Your task to perform on an android device: empty trash in the gmail app Image 0: 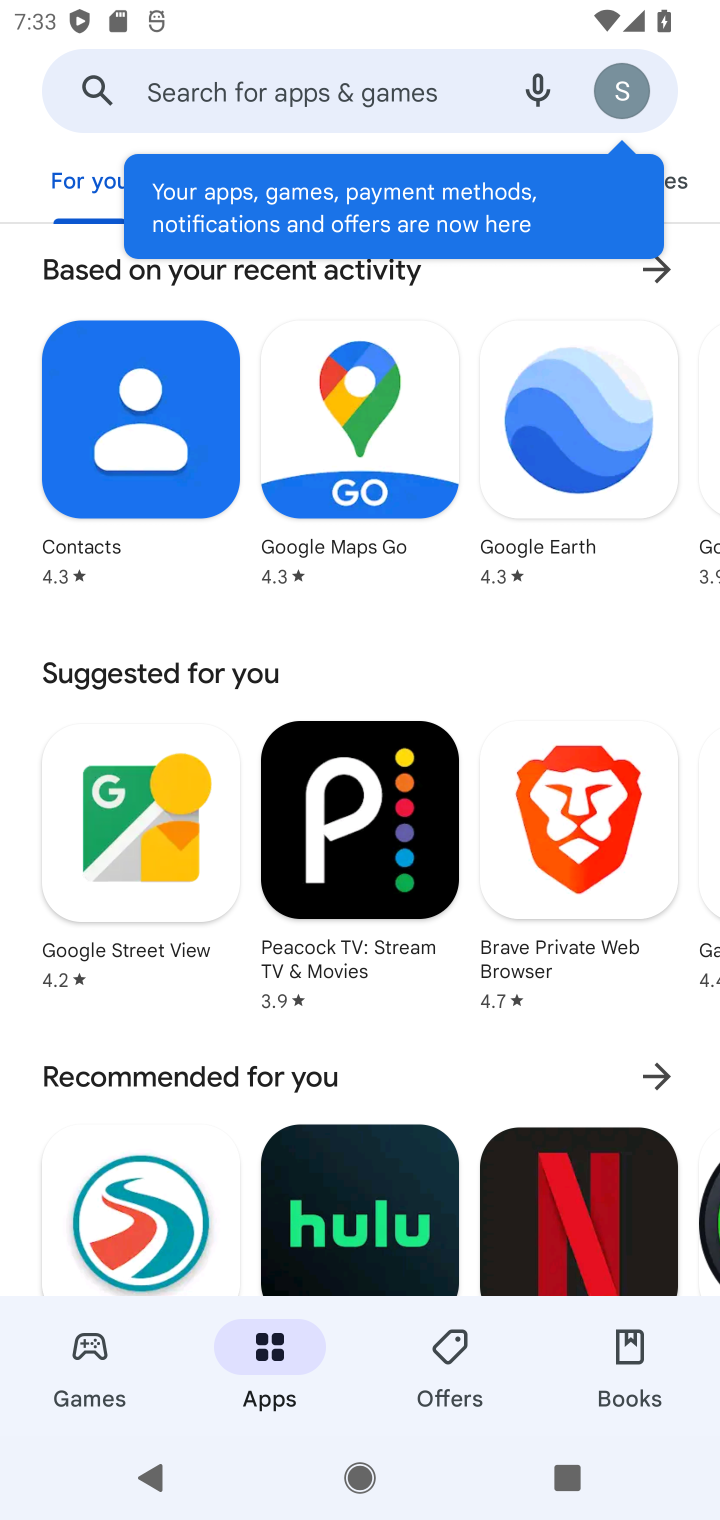
Step 0: press home button
Your task to perform on an android device: empty trash in the gmail app Image 1: 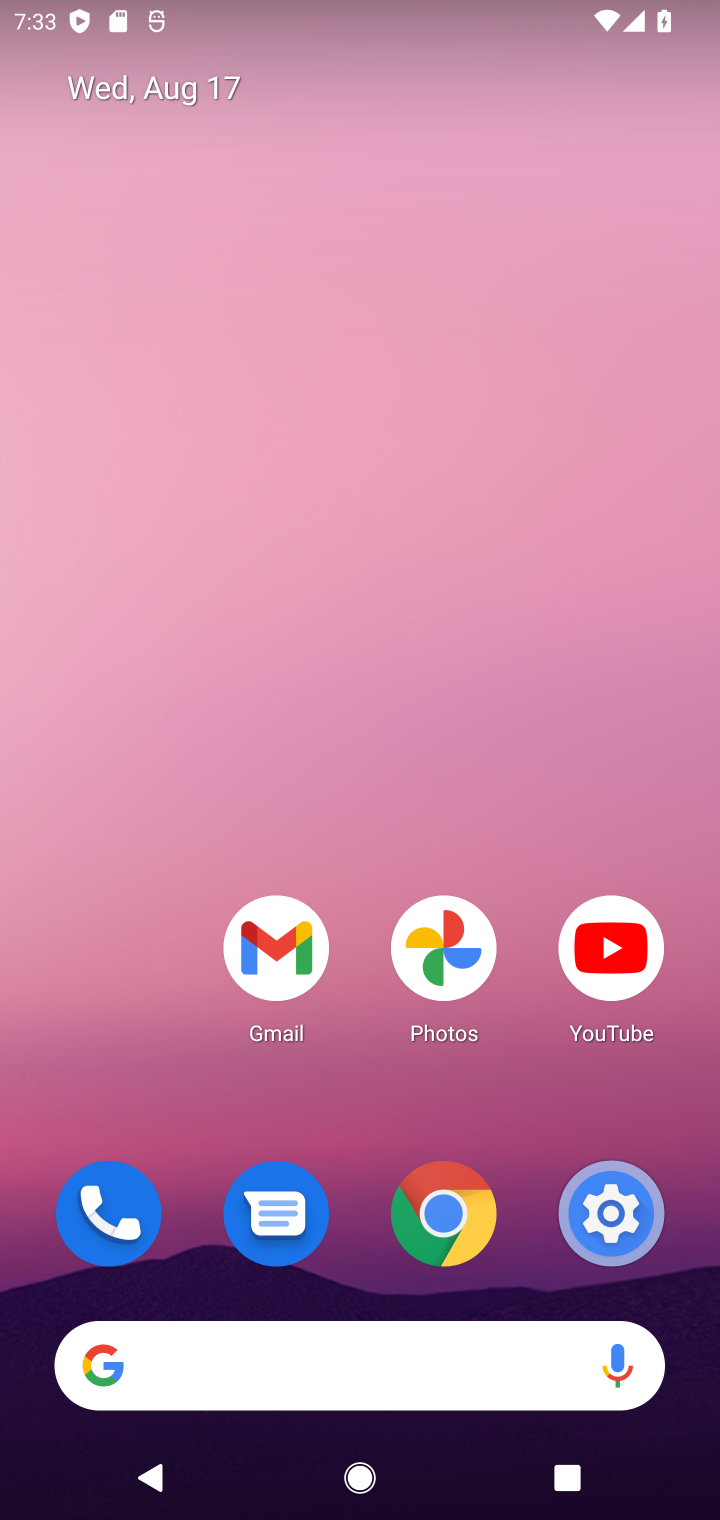
Step 1: click (259, 936)
Your task to perform on an android device: empty trash in the gmail app Image 2: 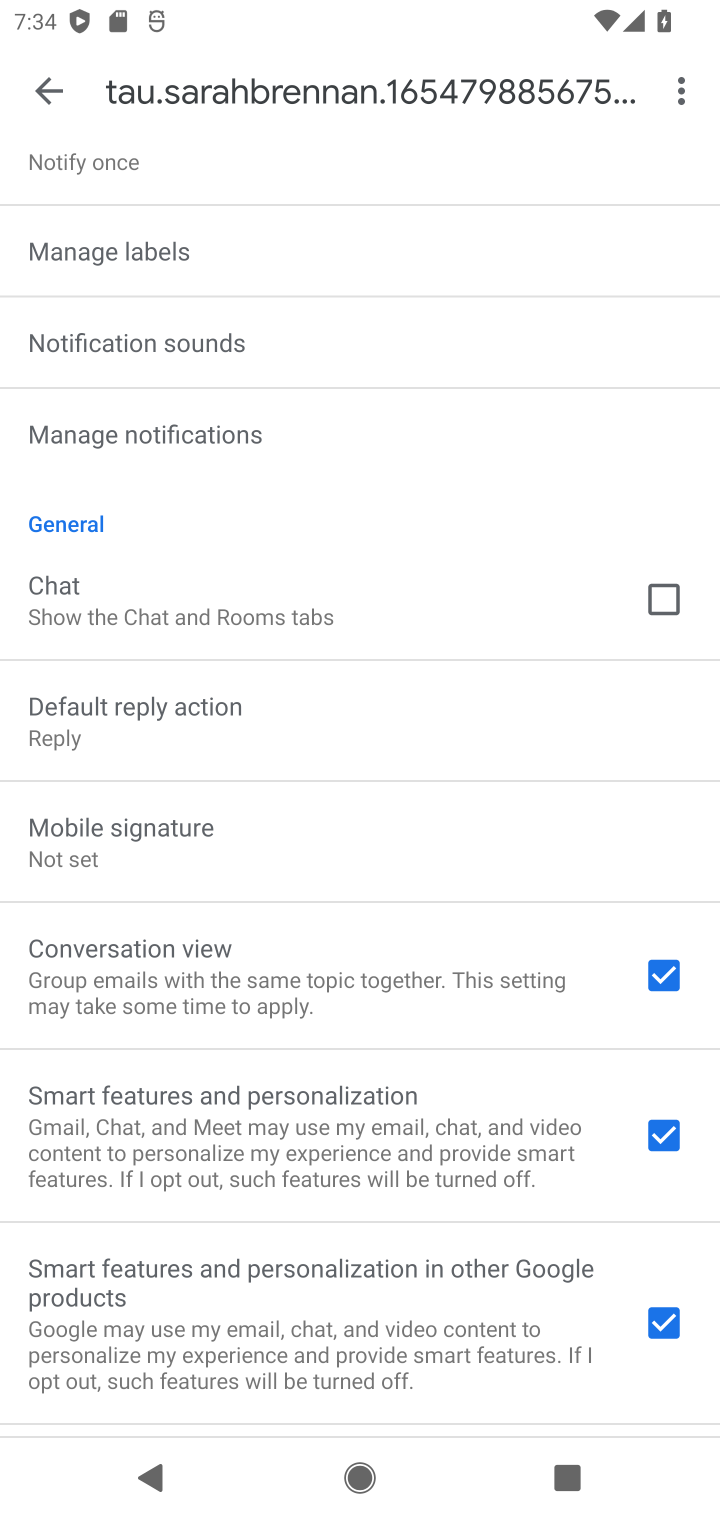
Step 2: task complete